Your task to perform on an android device: Is it going to rain tomorrow? Image 0: 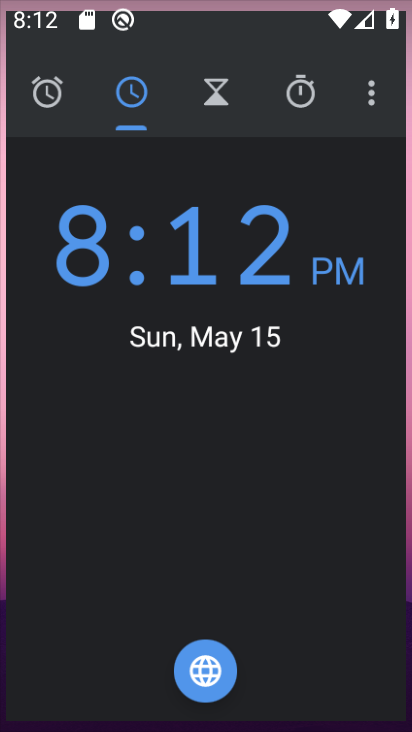
Step 0: click (262, 553)
Your task to perform on an android device: Is it going to rain tomorrow? Image 1: 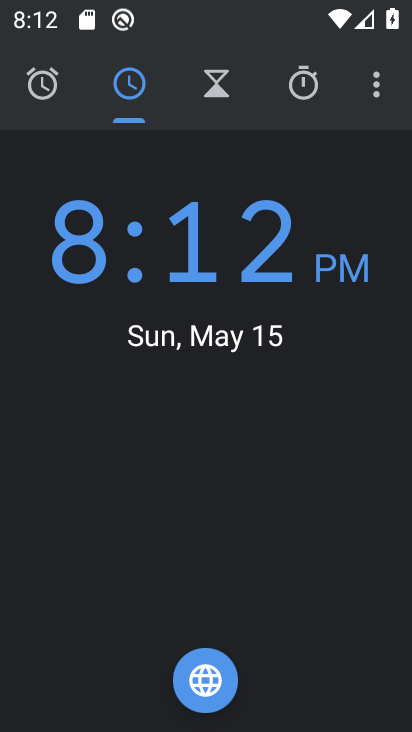
Step 1: press home button
Your task to perform on an android device: Is it going to rain tomorrow? Image 2: 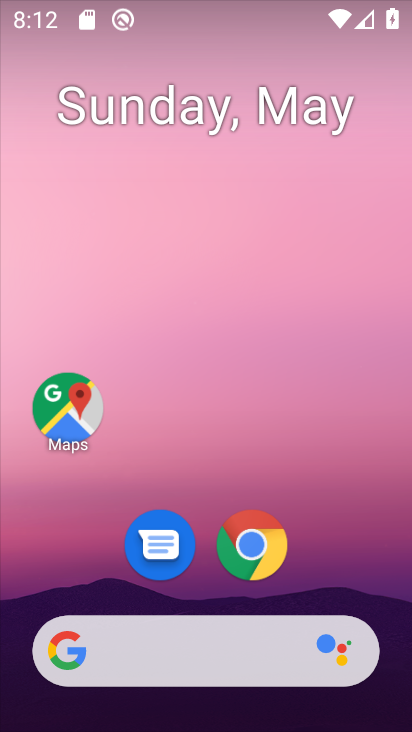
Step 2: click (150, 656)
Your task to perform on an android device: Is it going to rain tomorrow? Image 3: 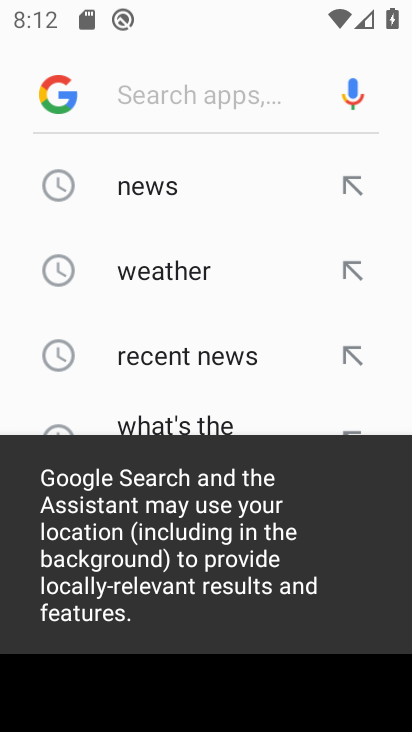
Step 3: click (178, 265)
Your task to perform on an android device: Is it going to rain tomorrow? Image 4: 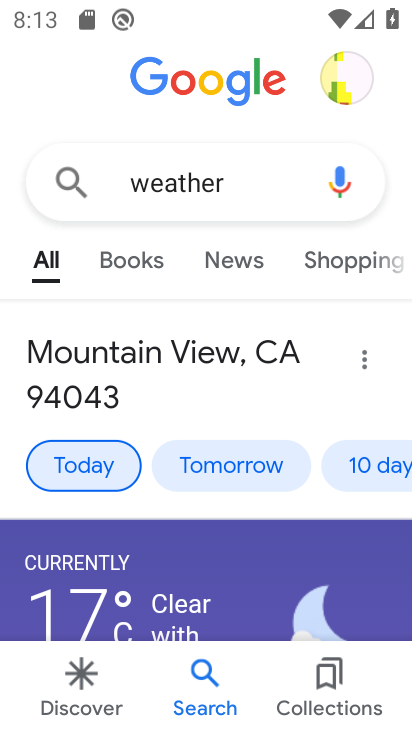
Step 4: drag from (146, 564) to (269, 152)
Your task to perform on an android device: Is it going to rain tomorrow? Image 5: 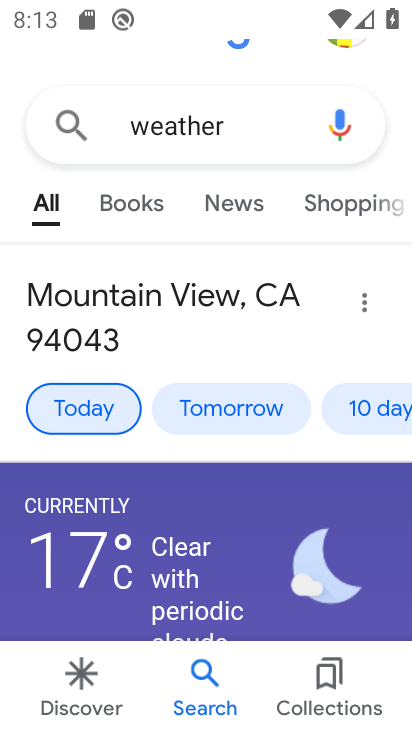
Step 5: click (226, 403)
Your task to perform on an android device: Is it going to rain tomorrow? Image 6: 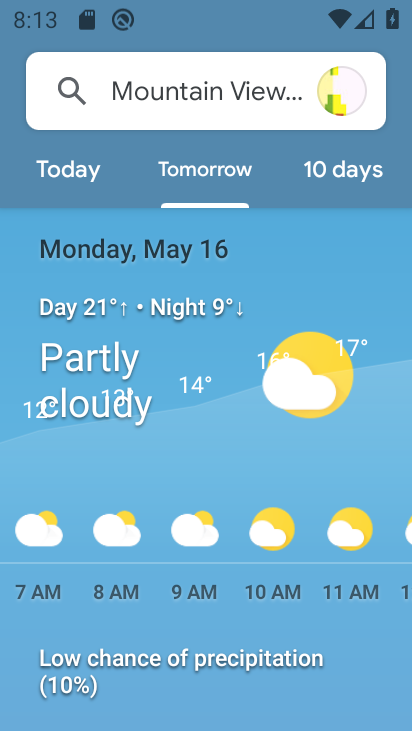
Step 6: task complete